Your task to perform on an android device: find snoozed emails in the gmail app Image 0: 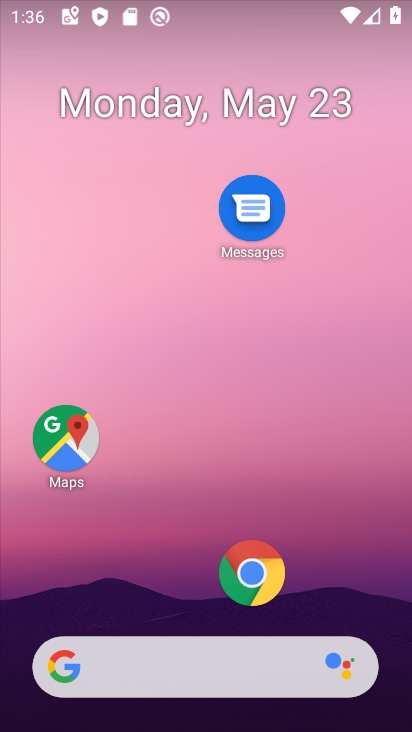
Step 0: drag from (158, 576) to (176, 206)
Your task to perform on an android device: find snoozed emails in the gmail app Image 1: 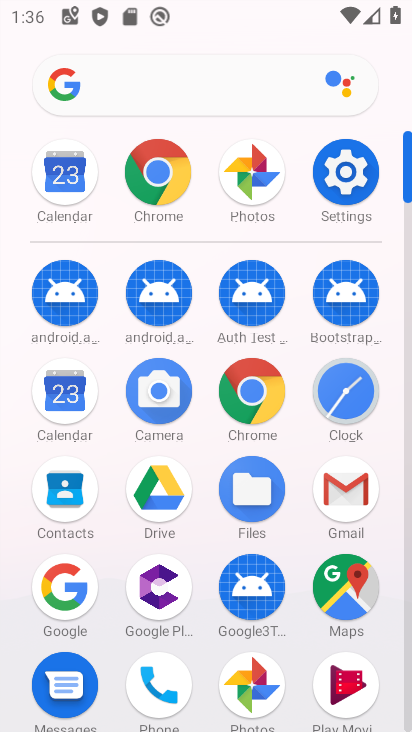
Step 1: click (338, 502)
Your task to perform on an android device: find snoozed emails in the gmail app Image 2: 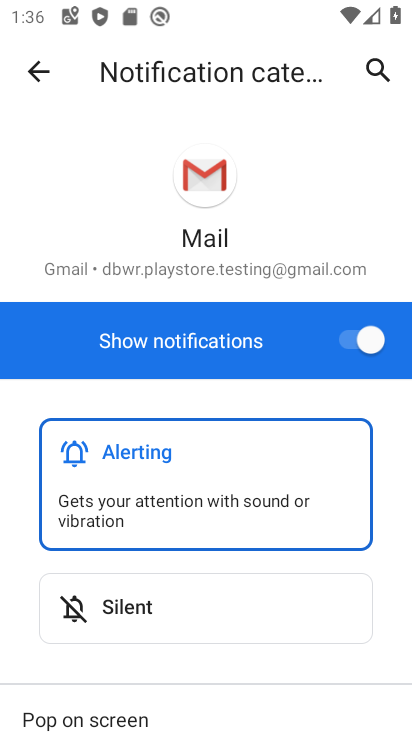
Step 2: press back button
Your task to perform on an android device: find snoozed emails in the gmail app Image 3: 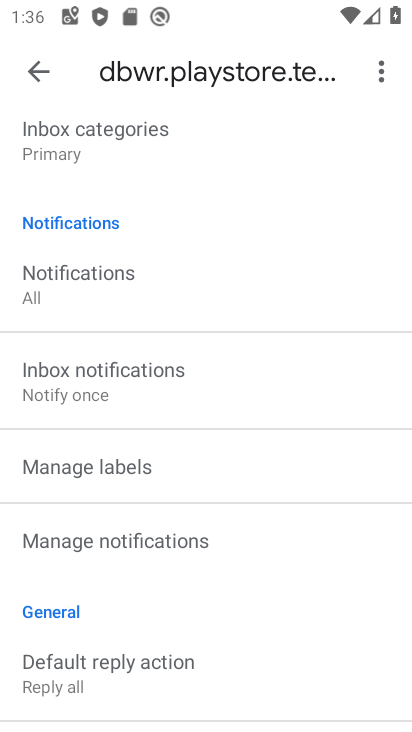
Step 3: press back button
Your task to perform on an android device: find snoozed emails in the gmail app Image 4: 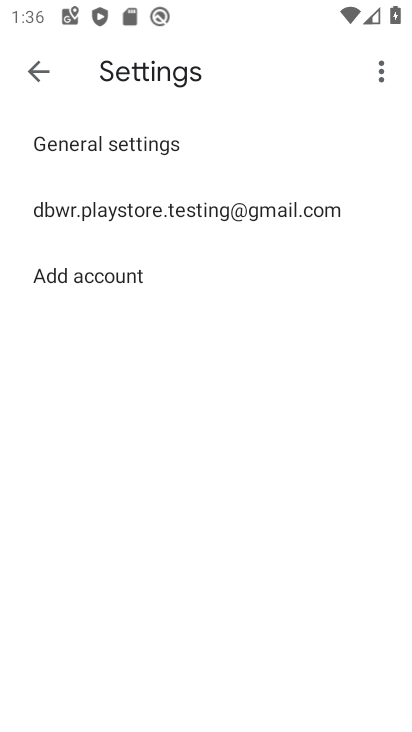
Step 4: press back button
Your task to perform on an android device: find snoozed emails in the gmail app Image 5: 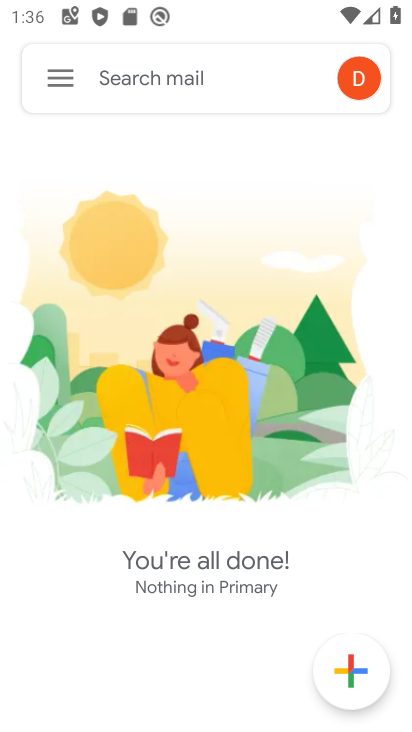
Step 5: click (63, 87)
Your task to perform on an android device: find snoozed emails in the gmail app Image 6: 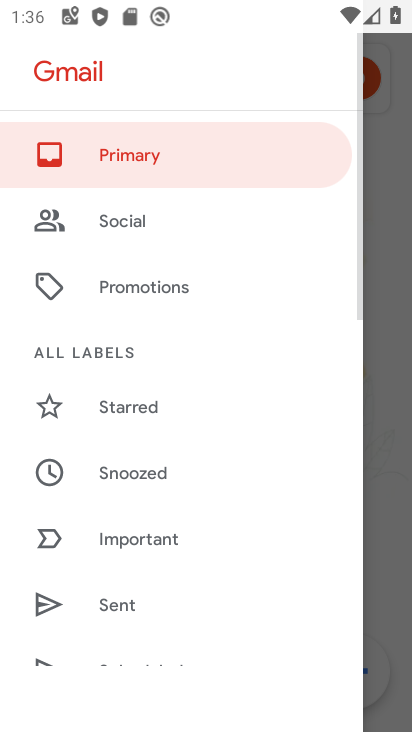
Step 6: click (170, 459)
Your task to perform on an android device: find snoozed emails in the gmail app Image 7: 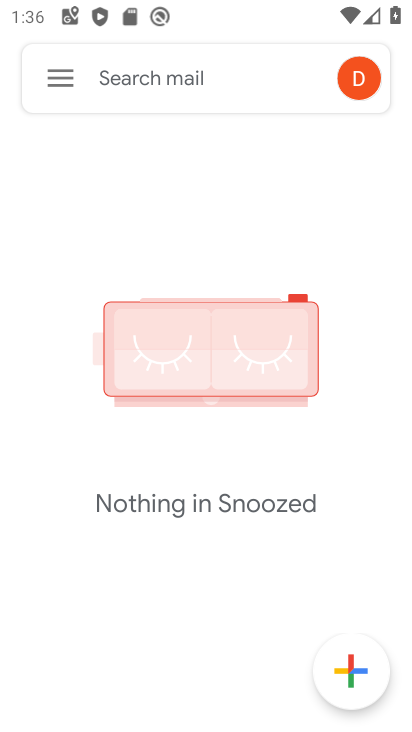
Step 7: task complete